Your task to perform on an android device: What time is it in Berlin? Image 0: 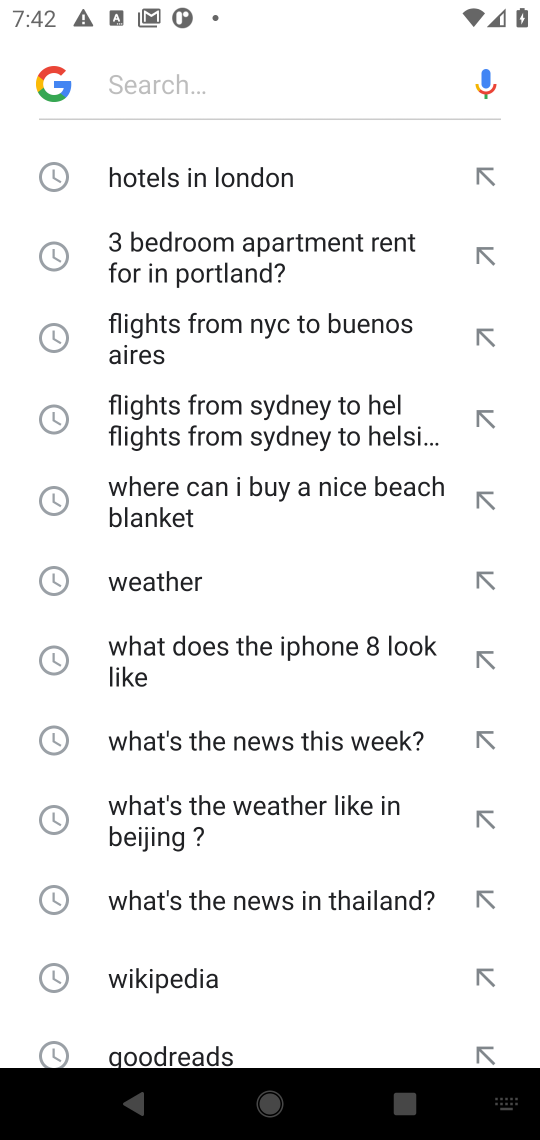
Step 0: type "time is it in Berlin?"
Your task to perform on an android device: What time is it in Berlin? Image 1: 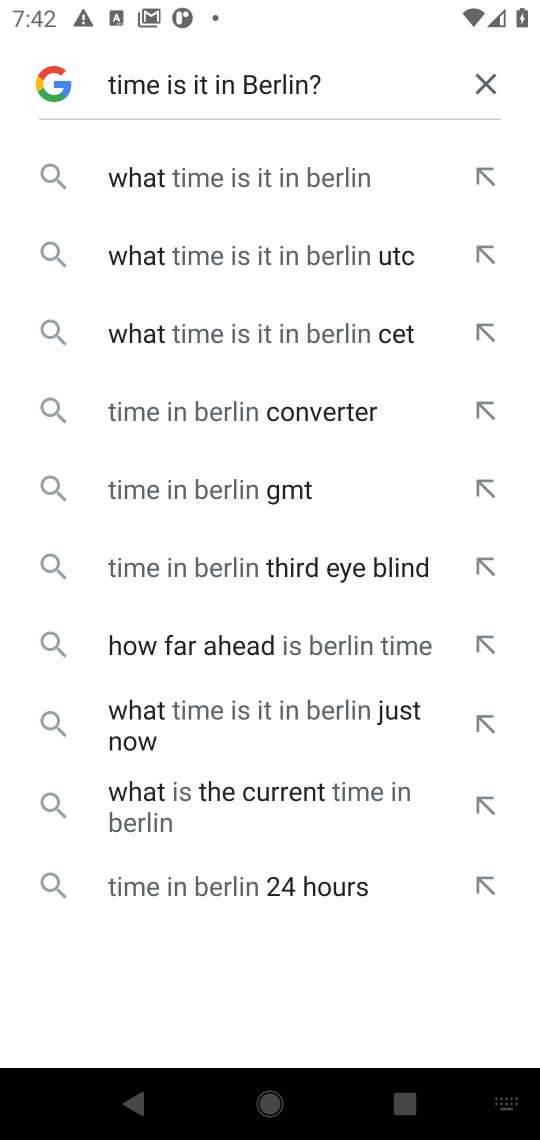
Step 1: type ""
Your task to perform on an android device: What time is it in Berlin? Image 2: 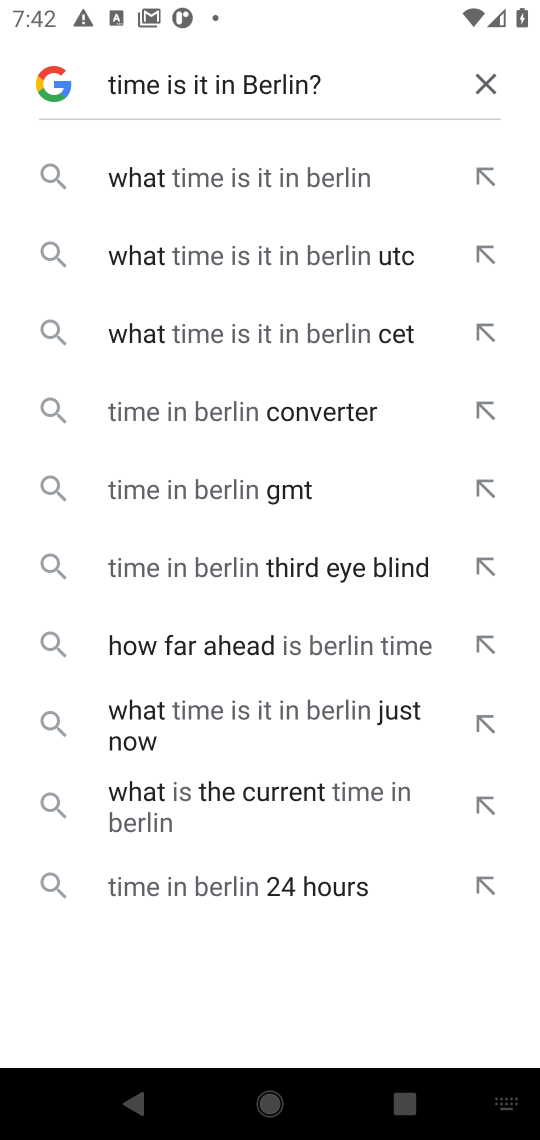
Step 2: click (246, 183)
Your task to perform on an android device: What time is it in Berlin? Image 3: 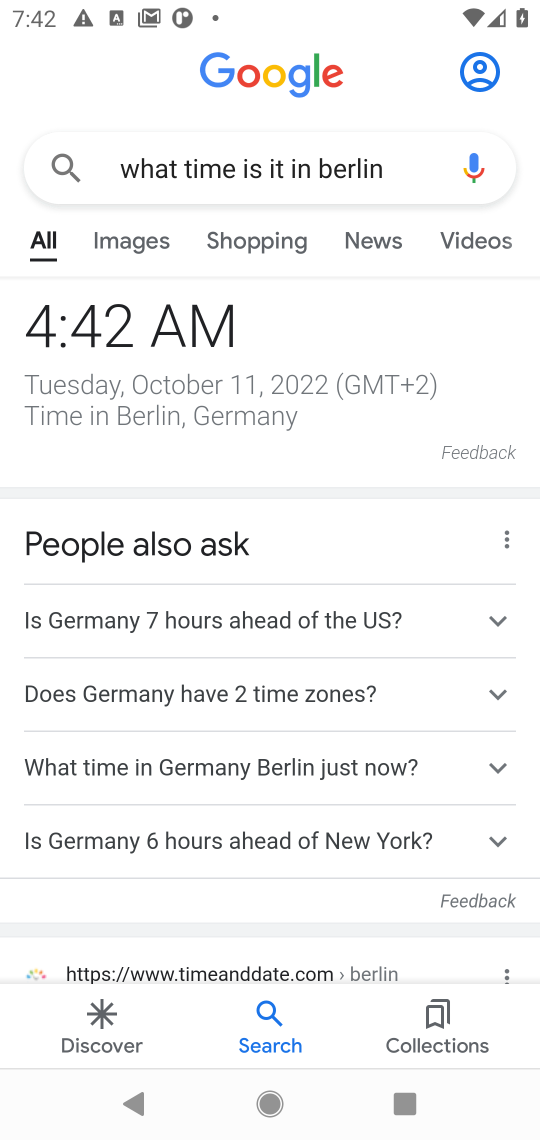
Step 3: drag from (339, 494) to (351, 390)
Your task to perform on an android device: What time is it in Berlin? Image 4: 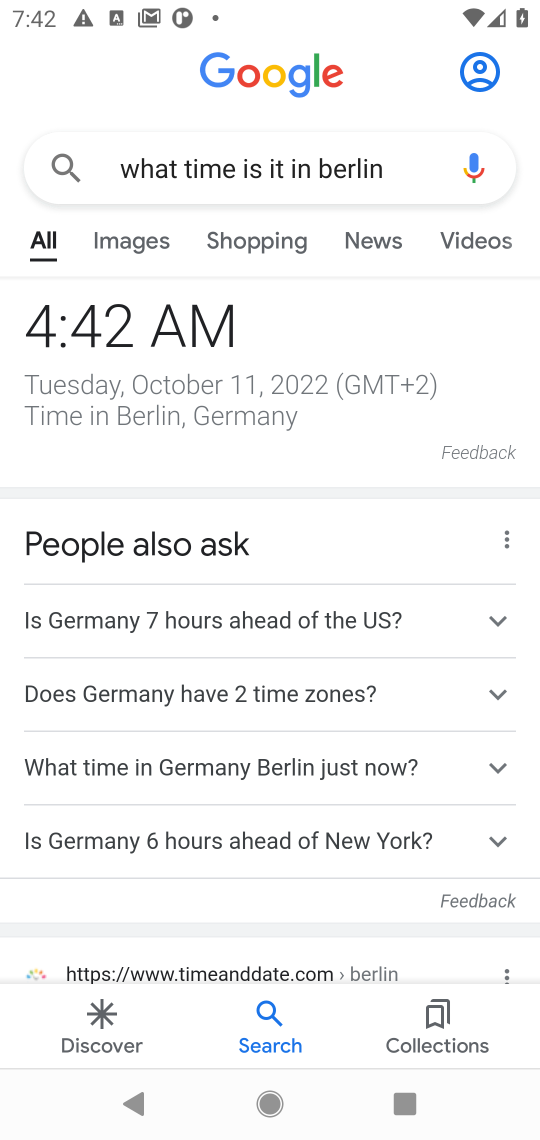
Step 4: drag from (330, 565) to (330, 356)
Your task to perform on an android device: What time is it in Berlin? Image 5: 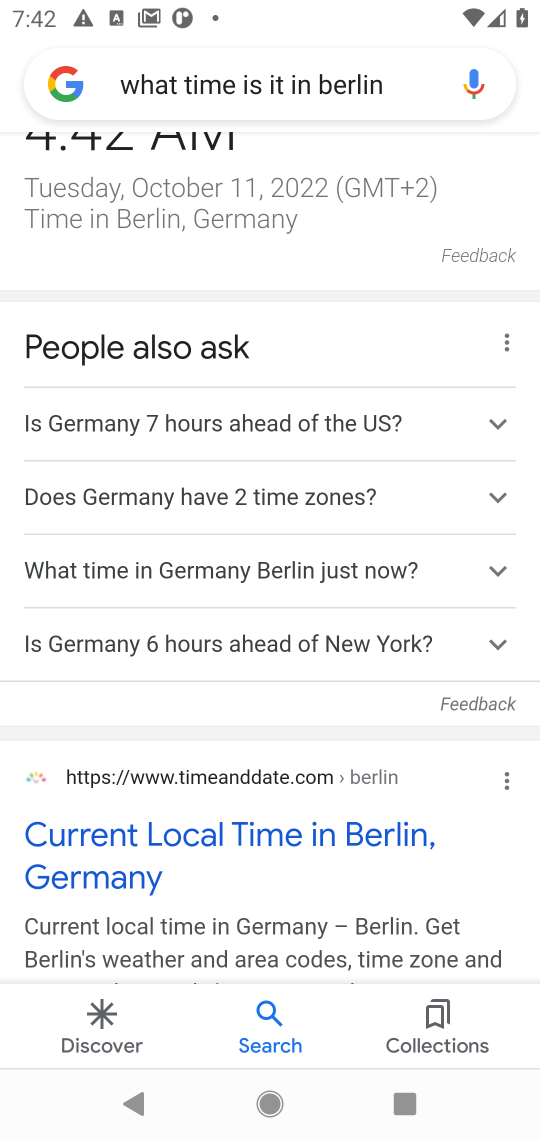
Step 5: drag from (300, 878) to (300, 781)
Your task to perform on an android device: What time is it in Berlin? Image 6: 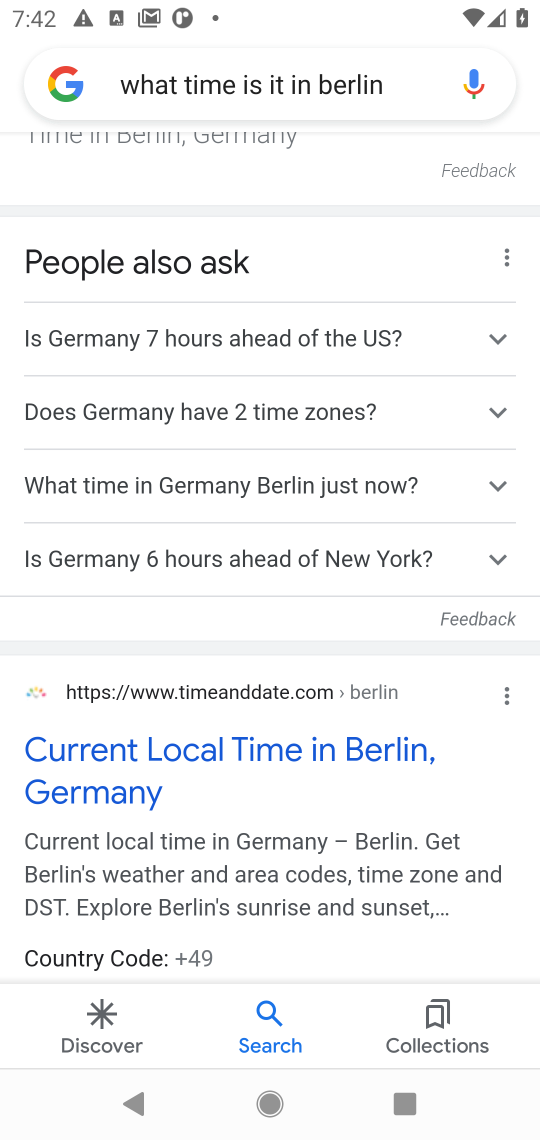
Step 6: click (290, 742)
Your task to perform on an android device: What time is it in Berlin? Image 7: 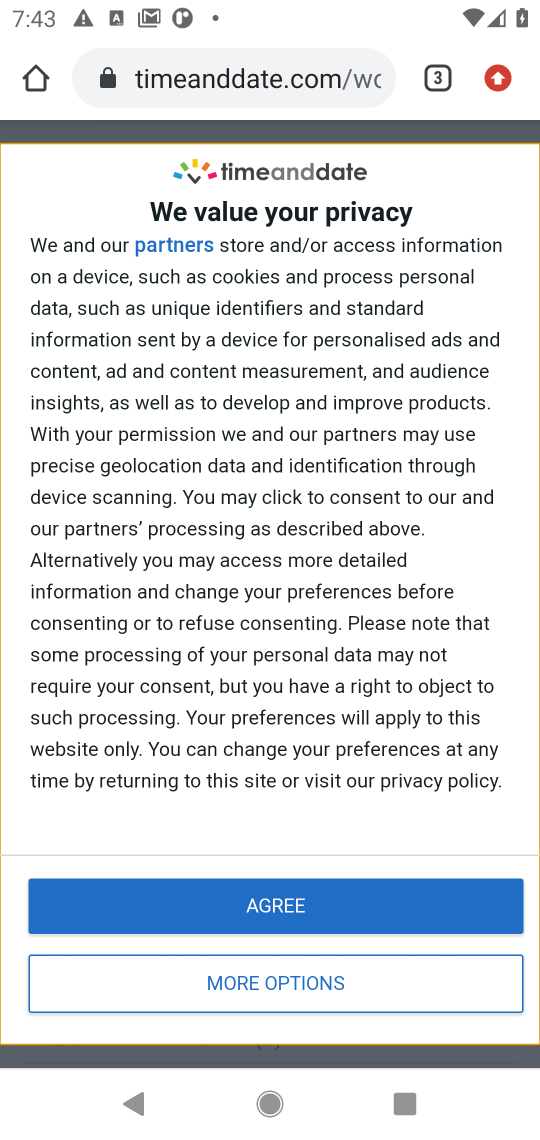
Step 7: click (278, 894)
Your task to perform on an android device: What time is it in Berlin? Image 8: 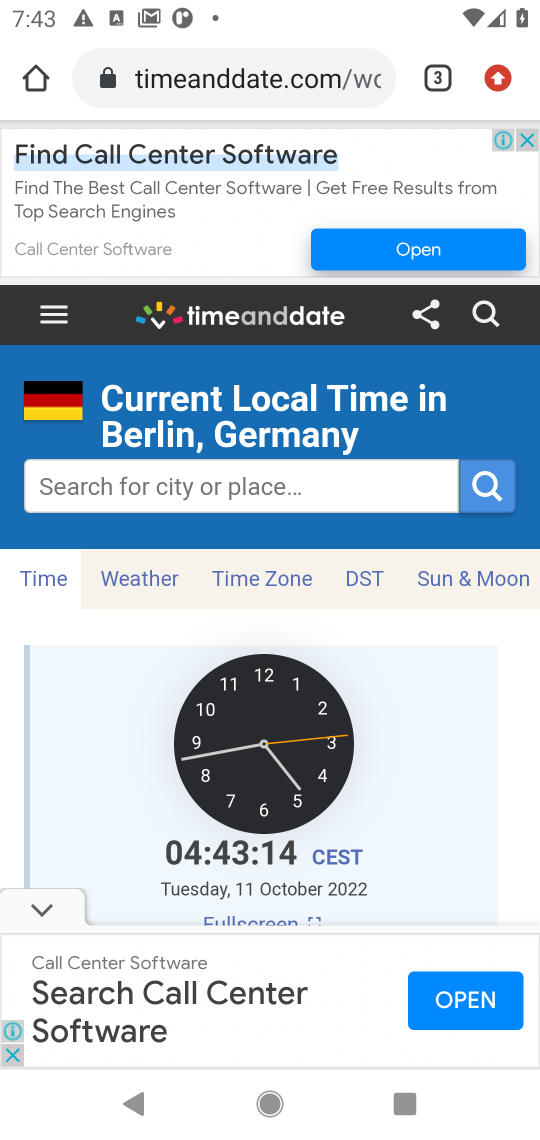
Step 8: task complete